Your task to perform on an android device: Go to ESPN.com Image 0: 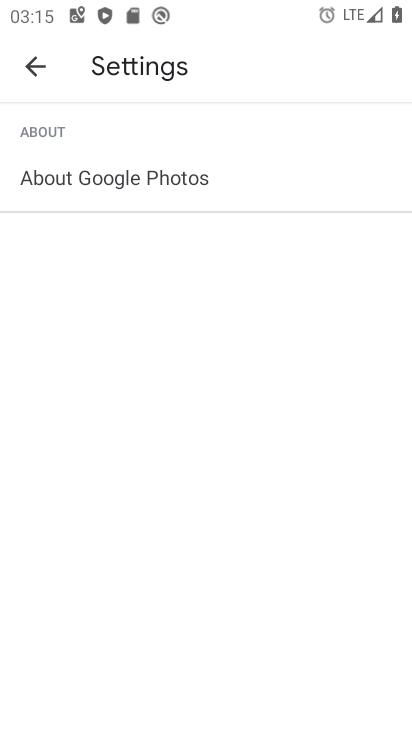
Step 0: press home button
Your task to perform on an android device: Go to ESPN.com Image 1: 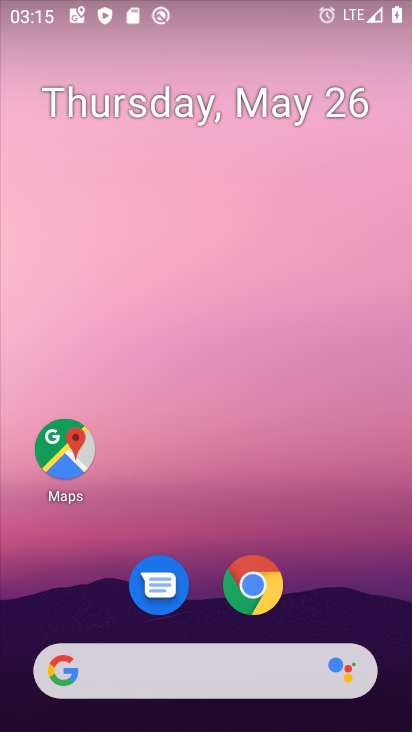
Step 1: type "espn.com"
Your task to perform on an android device: Go to ESPN.com Image 2: 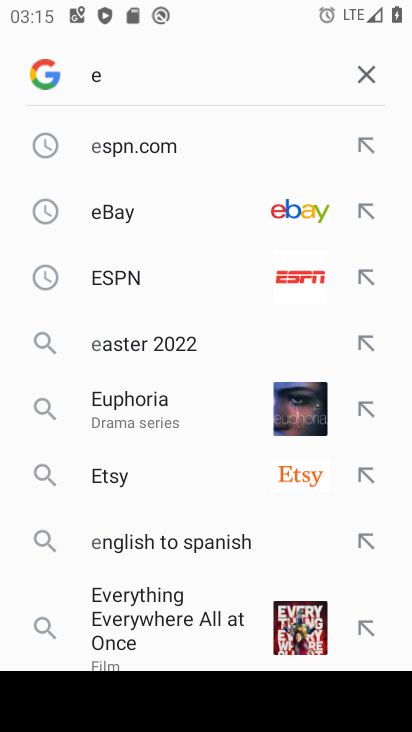
Step 2: click (117, 148)
Your task to perform on an android device: Go to ESPN.com Image 3: 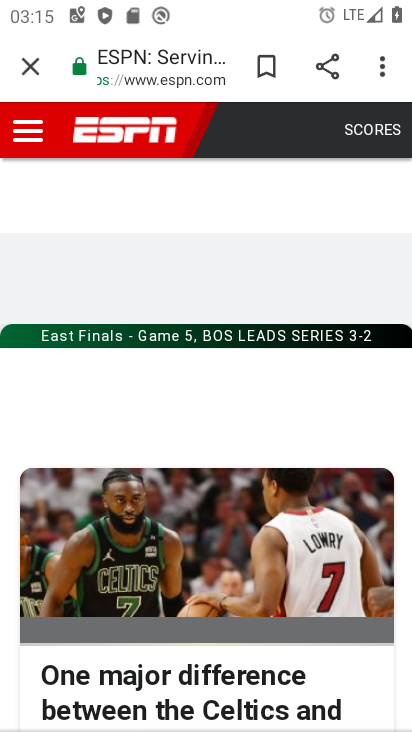
Step 3: task complete